Your task to perform on an android device: Open internet settings Image 0: 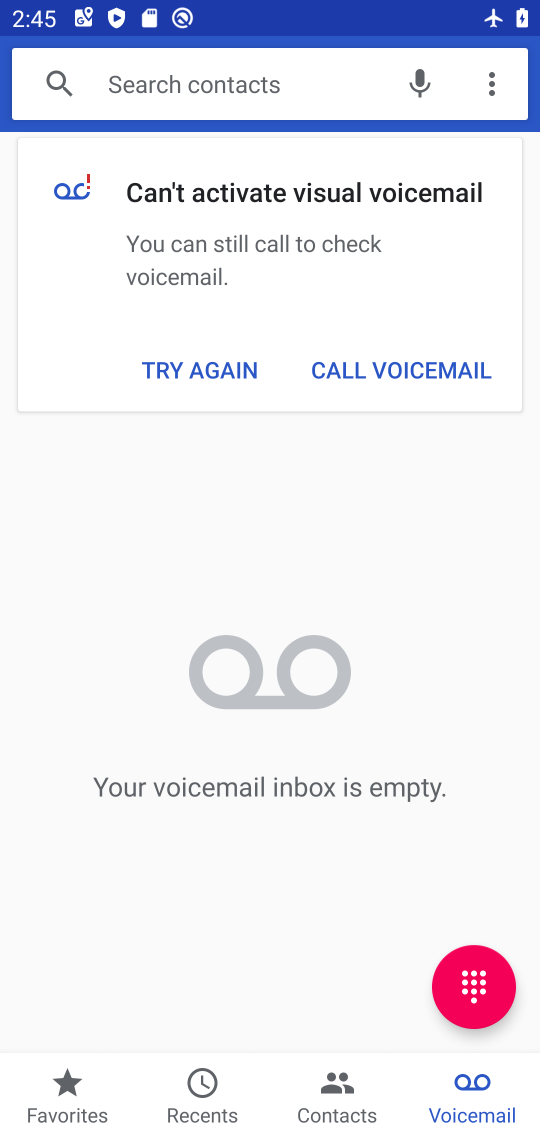
Step 0: press home button
Your task to perform on an android device: Open internet settings Image 1: 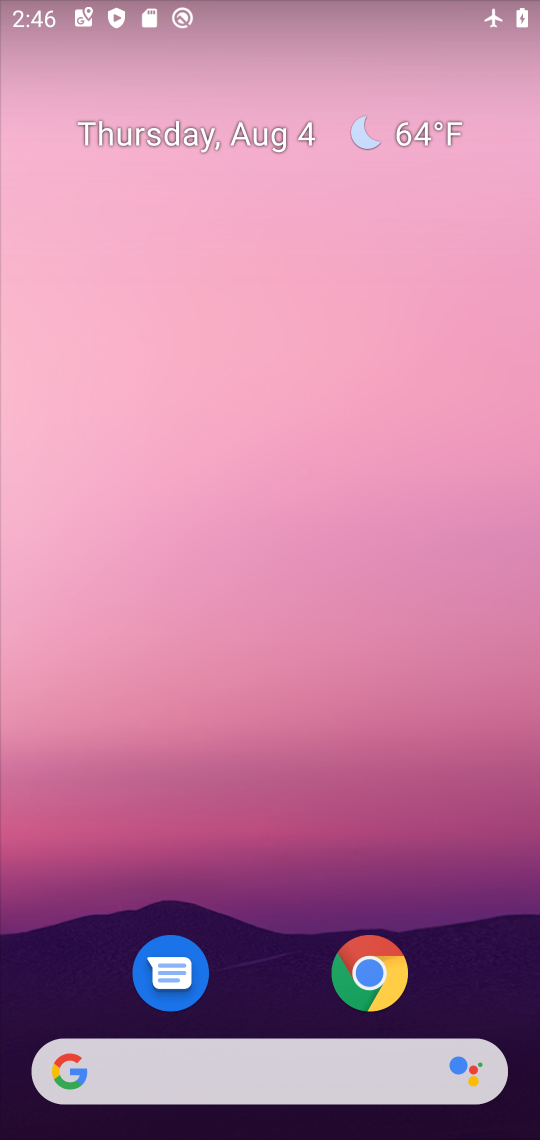
Step 1: drag from (293, 967) to (268, 181)
Your task to perform on an android device: Open internet settings Image 2: 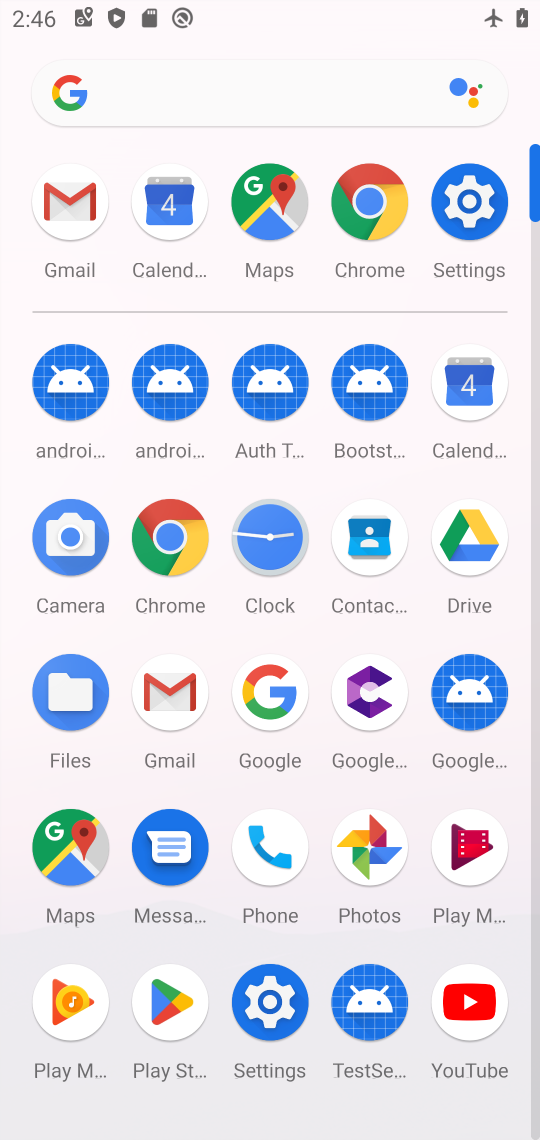
Step 2: click (496, 207)
Your task to perform on an android device: Open internet settings Image 3: 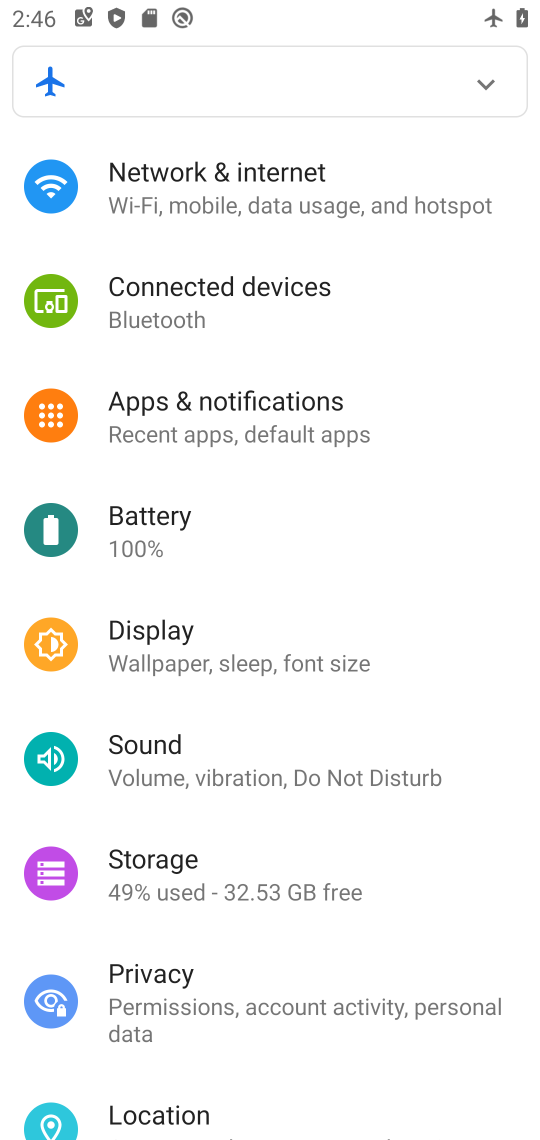
Step 3: click (200, 215)
Your task to perform on an android device: Open internet settings Image 4: 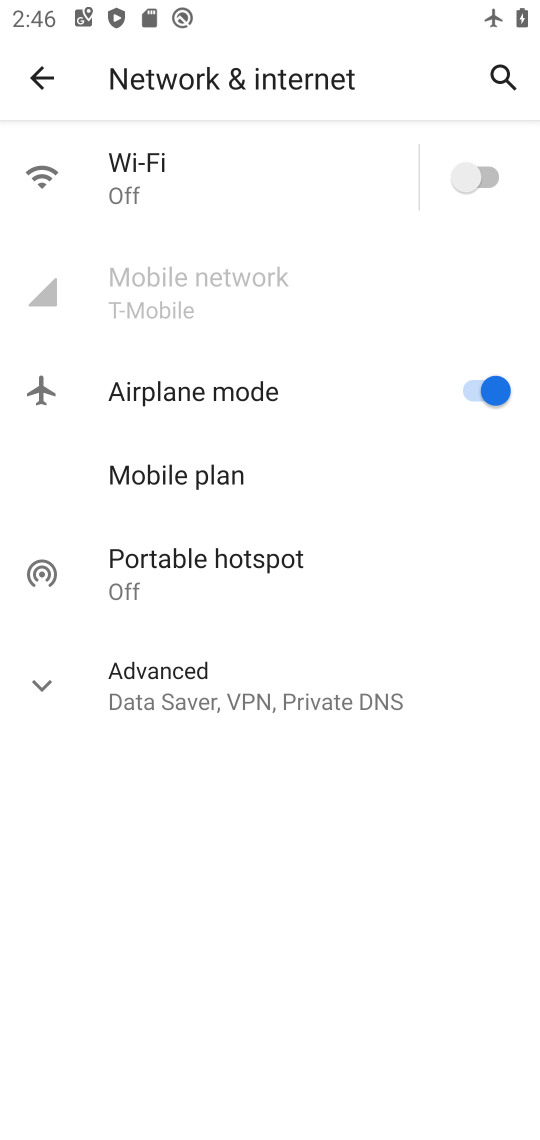
Step 4: task complete